Your task to perform on an android device: Open Google Maps Image 0: 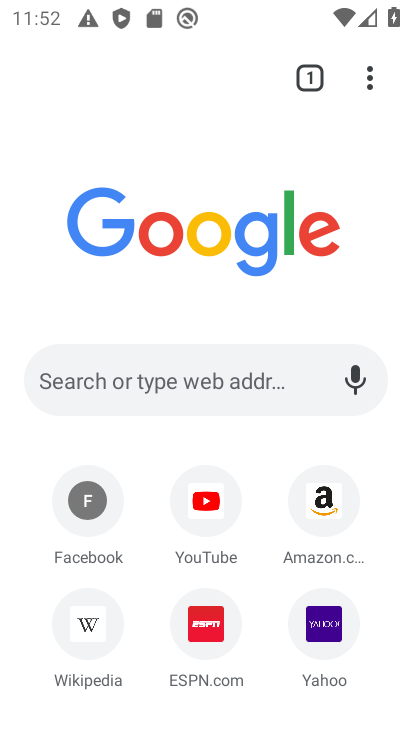
Step 0: press home button
Your task to perform on an android device: Open Google Maps Image 1: 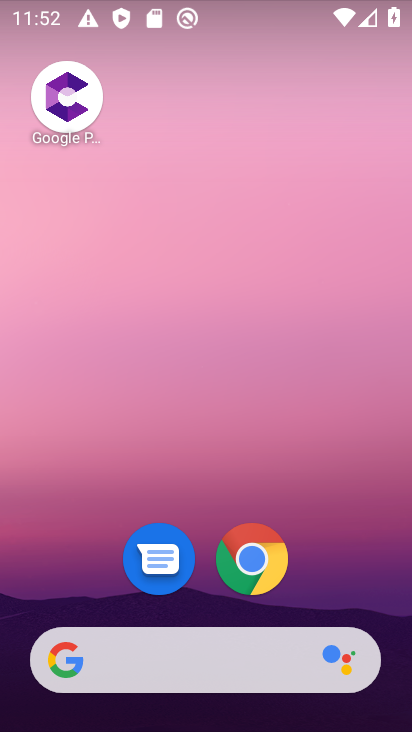
Step 1: drag from (193, 678) to (217, 183)
Your task to perform on an android device: Open Google Maps Image 2: 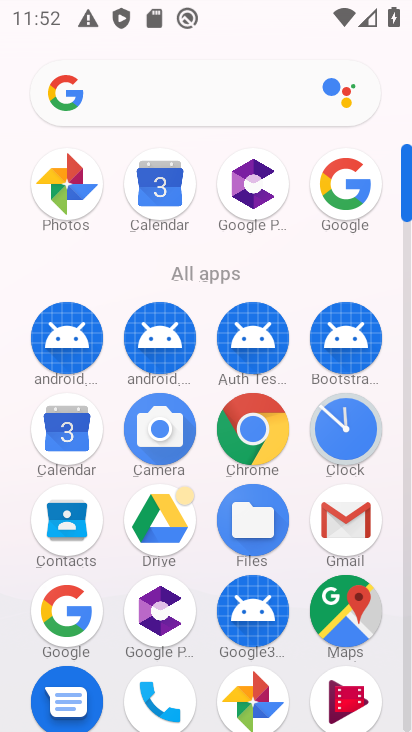
Step 2: click (343, 615)
Your task to perform on an android device: Open Google Maps Image 3: 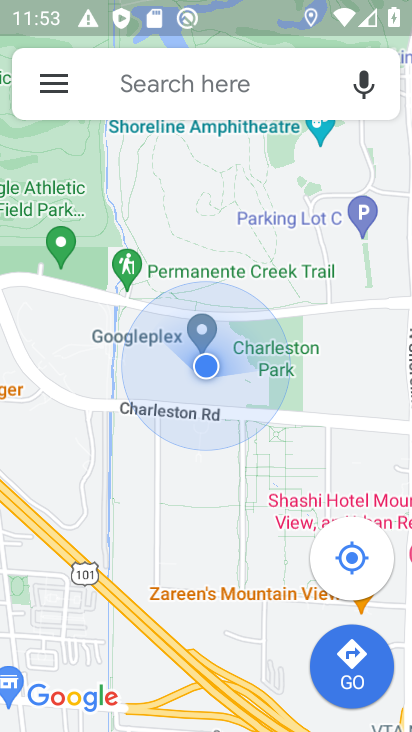
Step 3: task complete